Your task to perform on an android device: Go to ESPN.com Image 0: 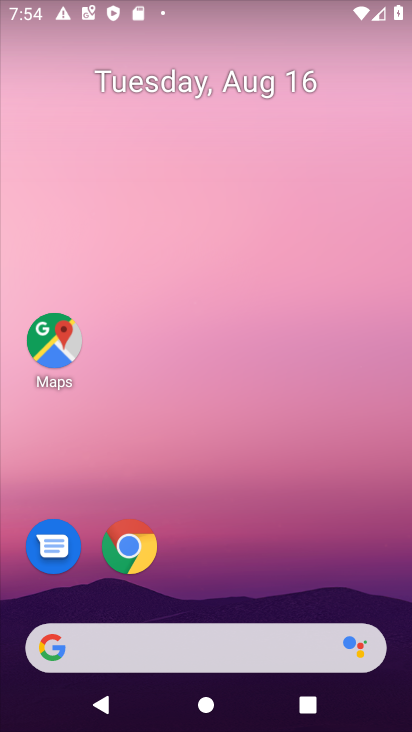
Step 0: click (249, 662)
Your task to perform on an android device: Go to ESPN.com Image 1: 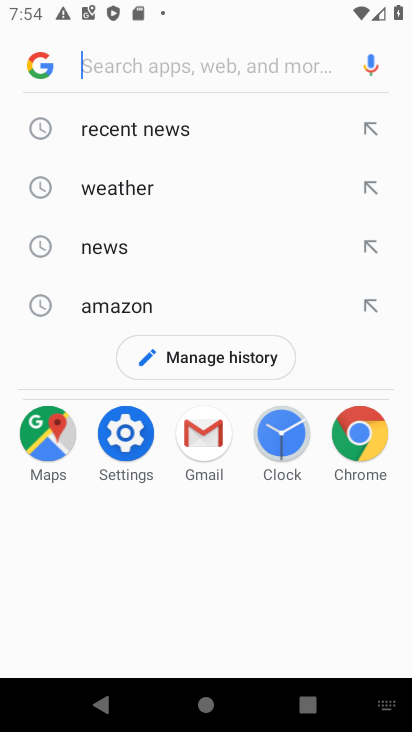
Step 1: type "espn.com"
Your task to perform on an android device: Go to ESPN.com Image 2: 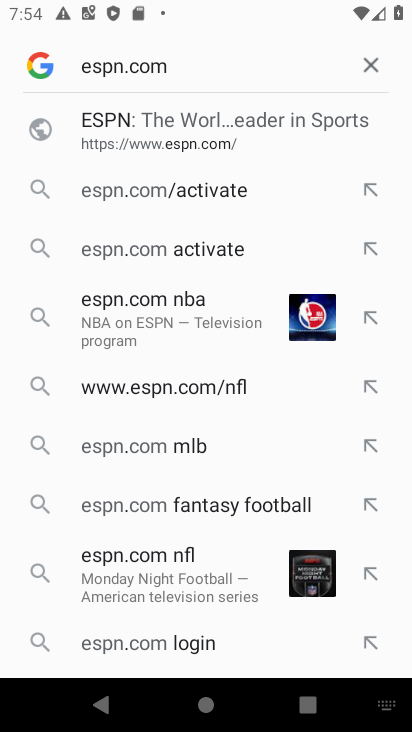
Step 2: click (214, 128)
Your task to perform on an android device: Go to ESPN.com Image 3: 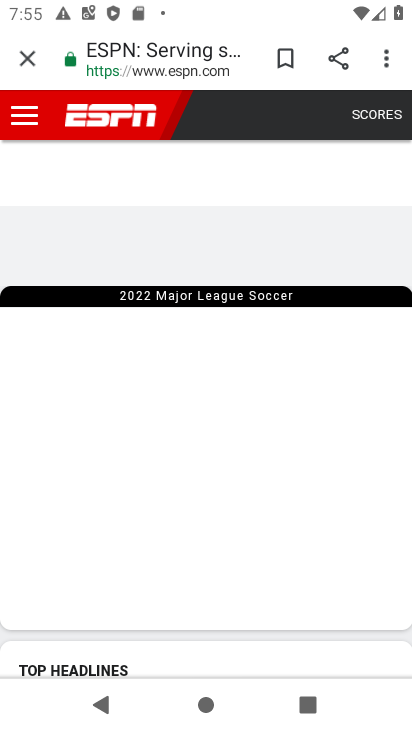
Step 3: task complete